Your task to perform on an android device: turn off improve location accuracy Image 0: 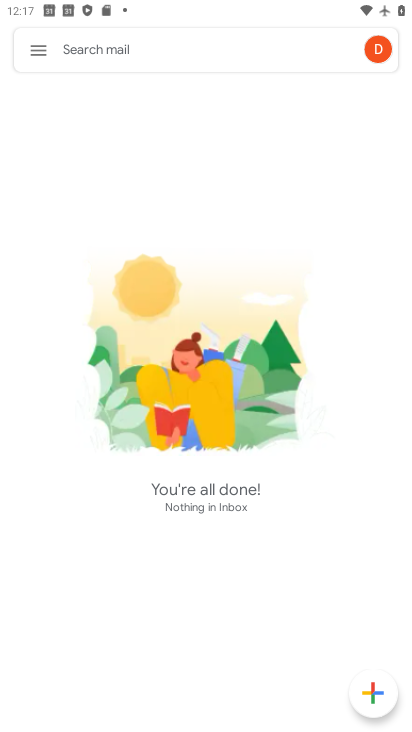
Step 0: press home button
Your task to perform on an android device: turn off improve location accuracy Image 1: 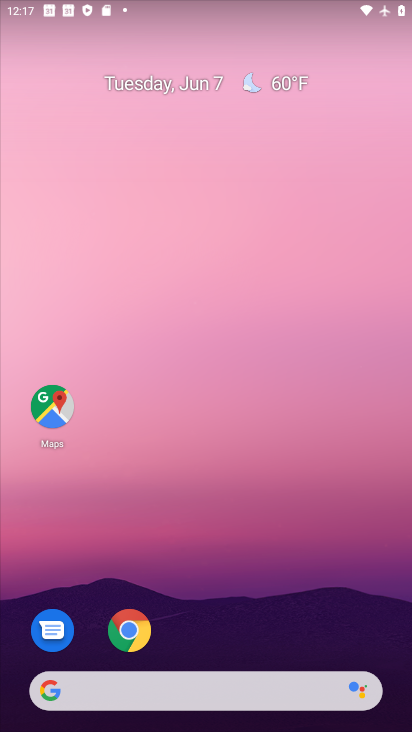
Step 1: drag from (401, 635) to (199, 52)
Your task to perform on an android device: turn off improve location accuracy Image 2: 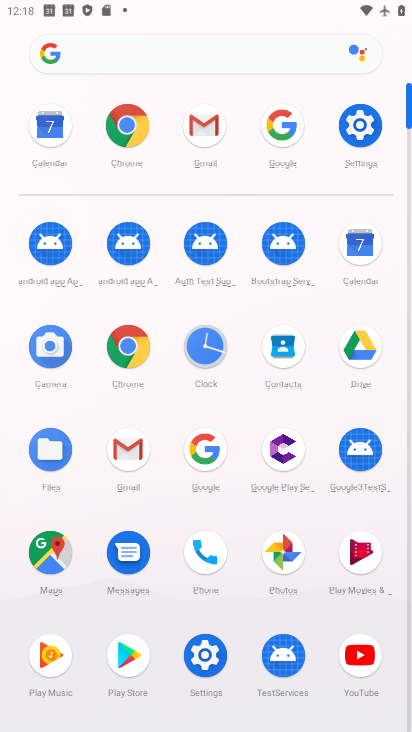
Step 2: click (203, 641)
Your task to perform on an android device: turn off improve location accuracy Image 3: 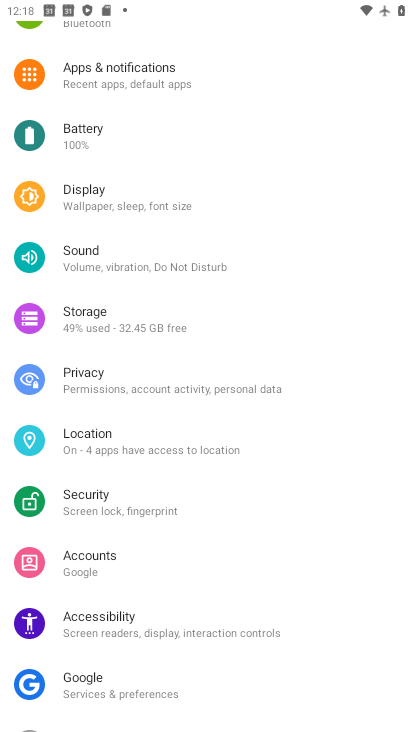
Step 3: click (97, 437)
Your task to perform on an android device: turn off improve location accuracy Image 4: 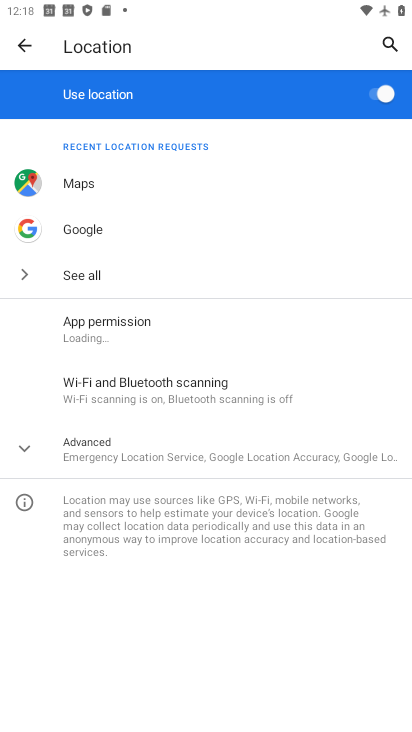
Step 4: click (97, 437)
Your task to perform on an android device: turn off improve location accuracy Image 5: 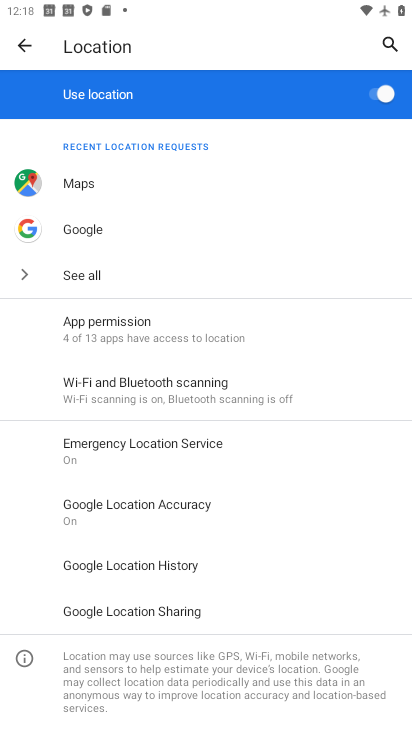
Step 5: click (151, 507)
Your task to perform on an android device: turn off improve location accuracy Image 6: 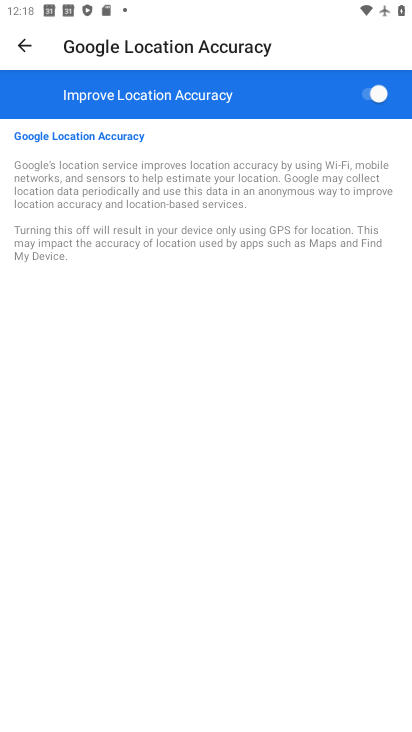
Step 6: click (357, 96)
Your task to perform on an android device: turn off improve location accuracy Image 7: 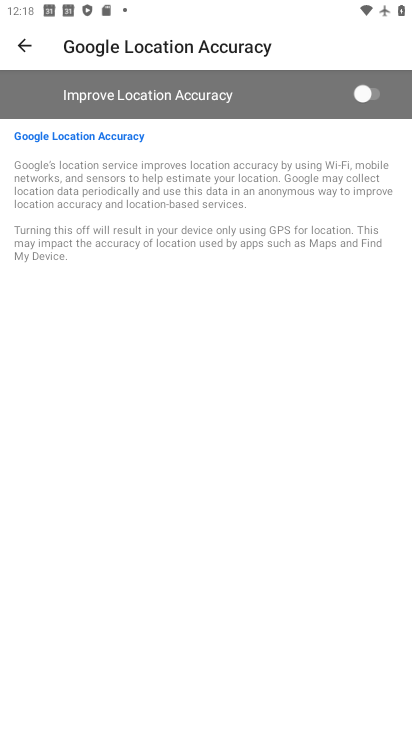
Step 7: task complete